Your task to perform on an android device: allow cookies in the chrome app Image 0: 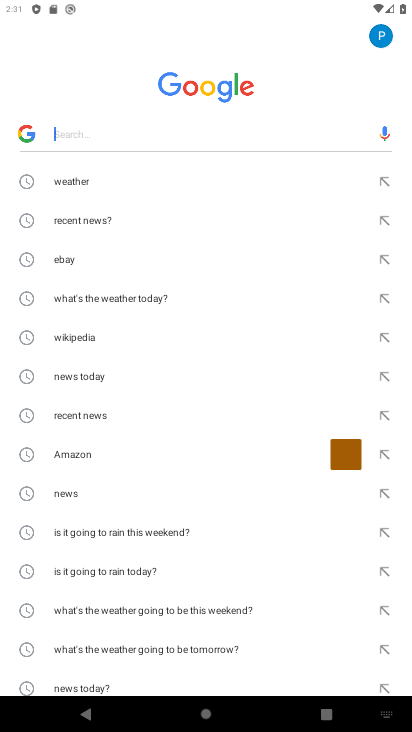
Step 0: press home button
Your task to perform on an android device: allow cookies in the chrome app Image 1: 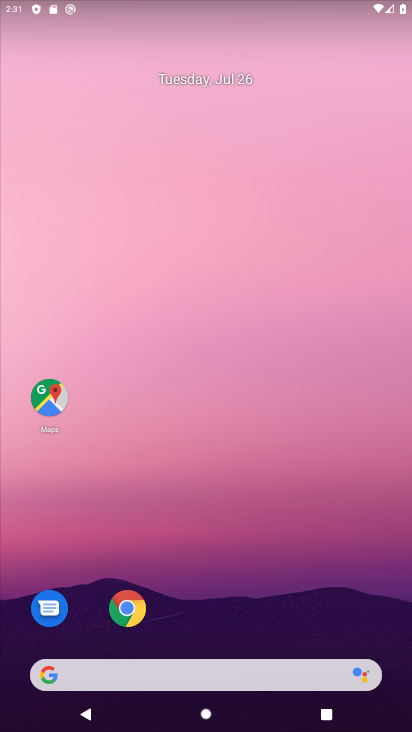
Step 1: click (129, 618)
Your task to perform on an android device: allow cookies in the chrome app Image 2: 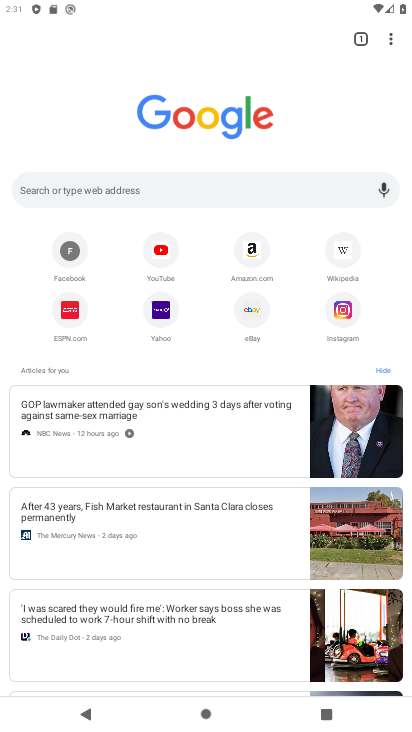
Step 2: click (396, 40)
Your task to perform on an android device: allow cookies in the chrome app Image 3: 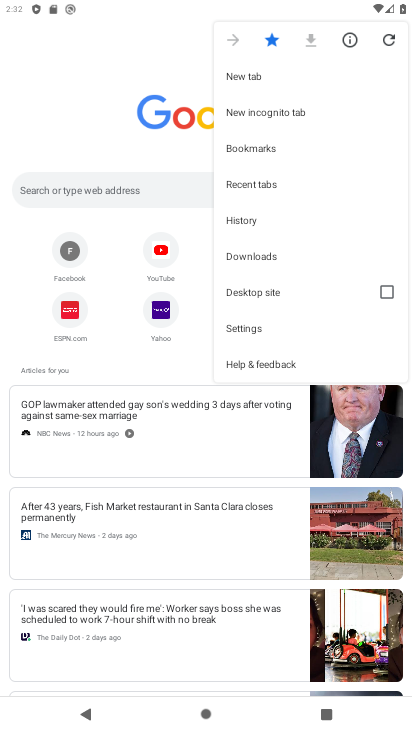
Step 3: click (252, 336)
Your task to perform on an android device: allow cookies in the chrome app Image 4: 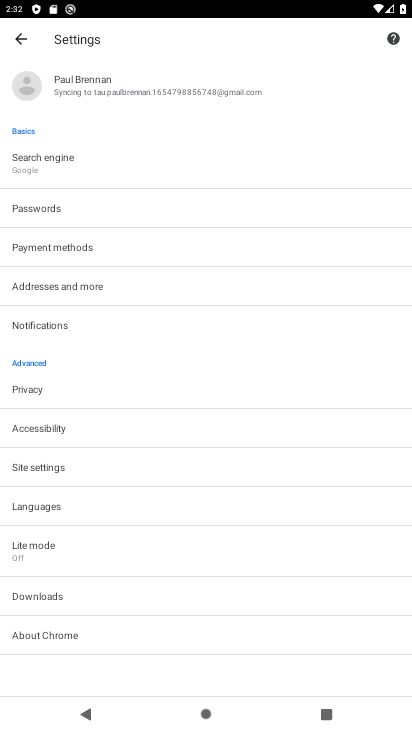
Step 4: click (90, 464)
Your task to perform on an android device: allow cookies in the chrome app Image 5: 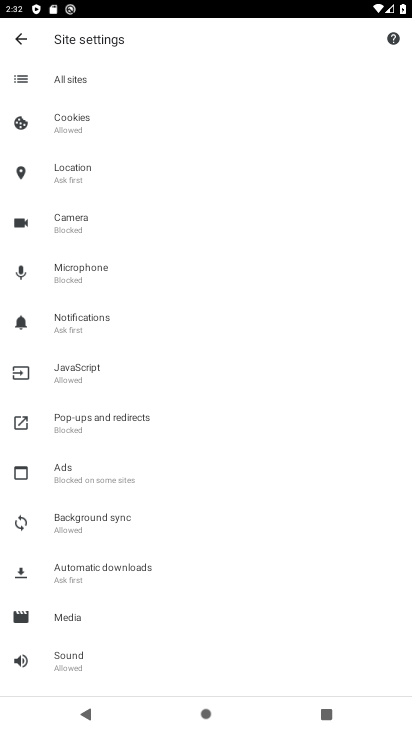
Step 5: click (118, 120)
Your task to perform on an android device: allow cookies in the chrome app Image 6: 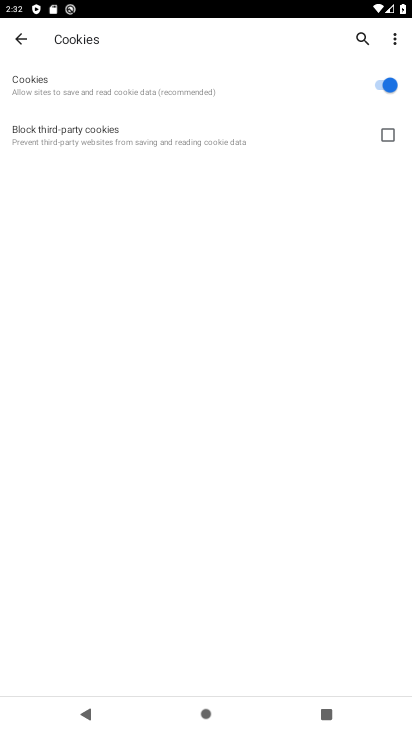
Step 6: task complete